Your task to perform on an android device: What is the recent news? Image 0: 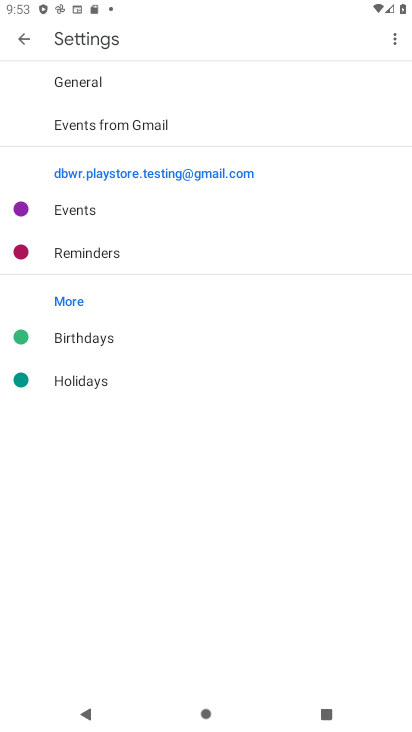
Step 0: press home button
Your task to perform on an android device: What is the recent news? Image 1: 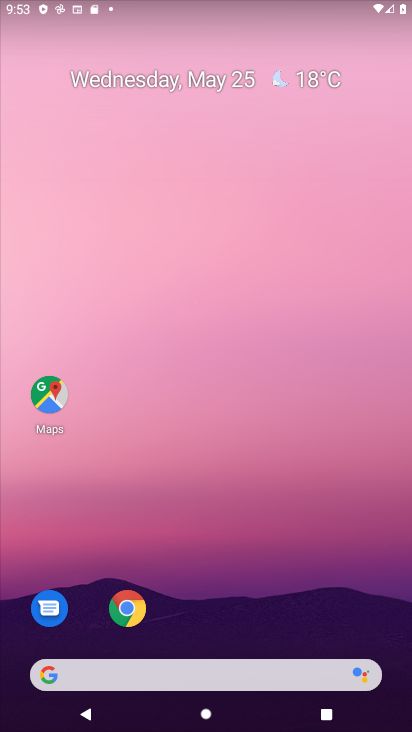
Step 1: drag from (296, 518) to (249, 22)
Your task to perform on an android device: What is the recent news? Image 2: 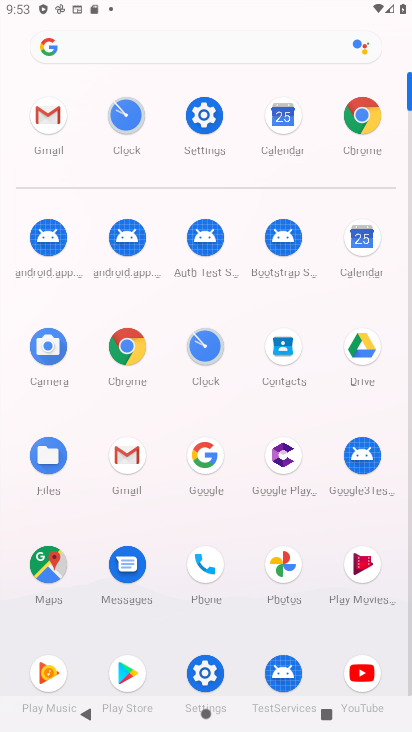
Step 2: click (190, 452)
Your task to perform on an android device: What is the recent news? Image 3: 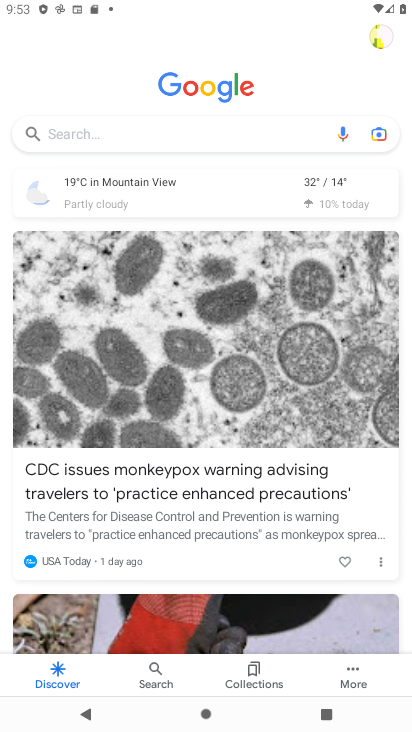
Step 3: click (133, 125)
Your task to perform on an android device: What is the recent news? Image 4: 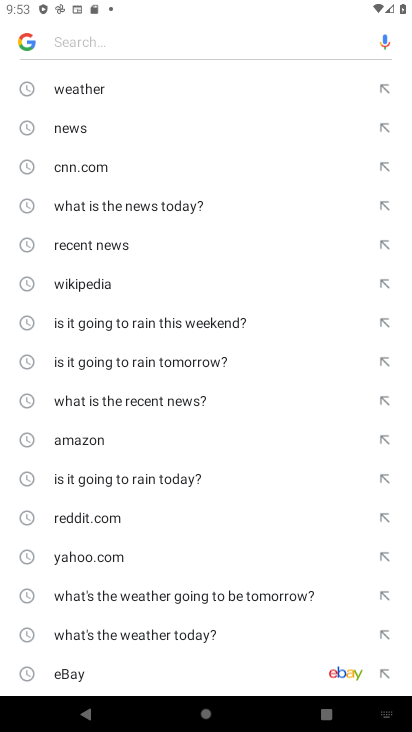
Step 4: click (122, 238)
Your task to perform on an android device: What is the recent news? Image 5: 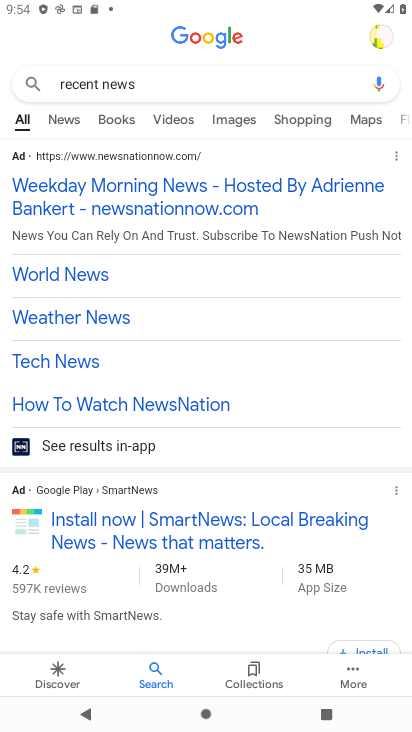
Step 5: press home button
Your task to perform on an android device: What is the recent news? Image 6: 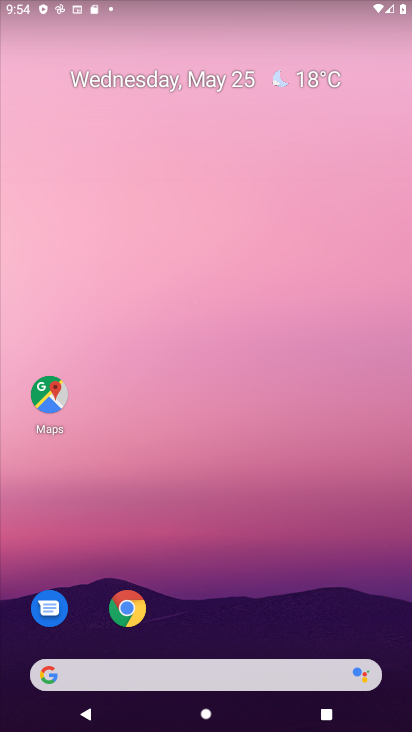
Step 6: drag from (267, 399) to (220, 67)
Your task to perform on an android device: What is the recent news? Image 7: 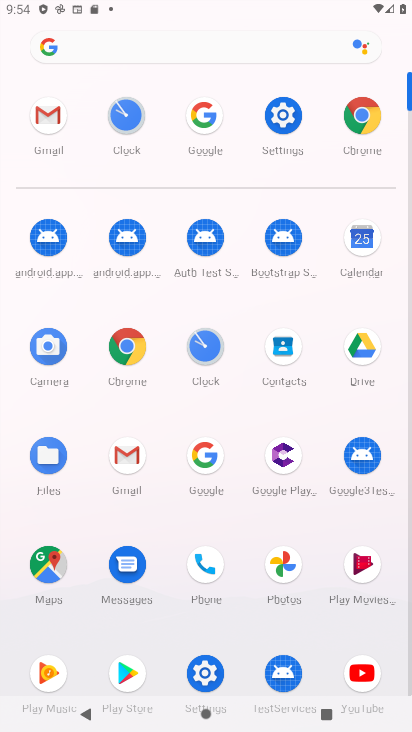
Step 7: click (210, 451)
Your task to perform on an android device: What is the recent news? Image 8: 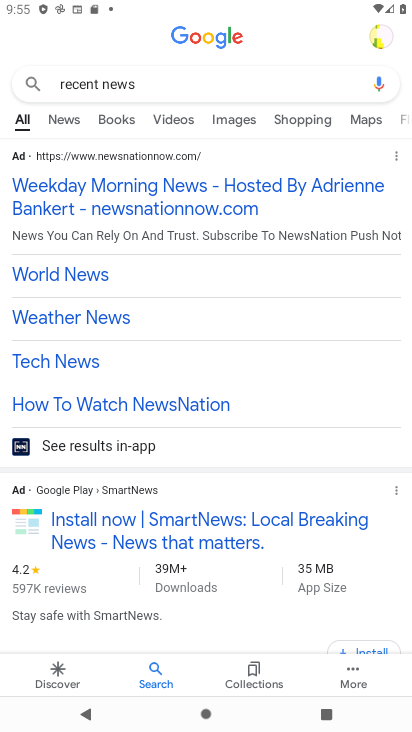
Step 8: task complete